Your task to perform on an android device: Go to battery settings Image 0: 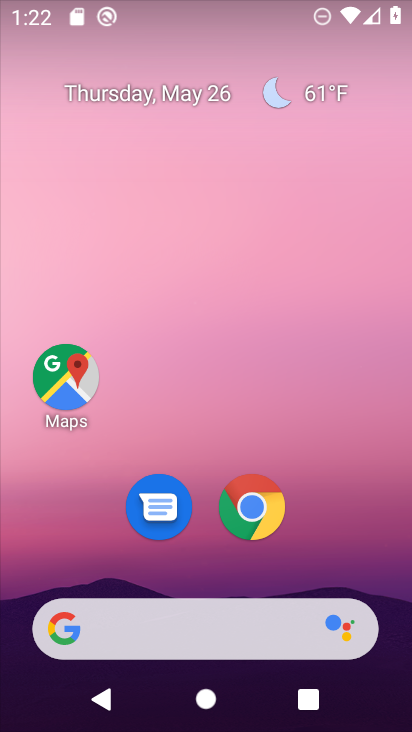
Step 0: drag from (364, 534) to (24, 80)
Your task to perform on an android device: Go to battery settings Image 1: 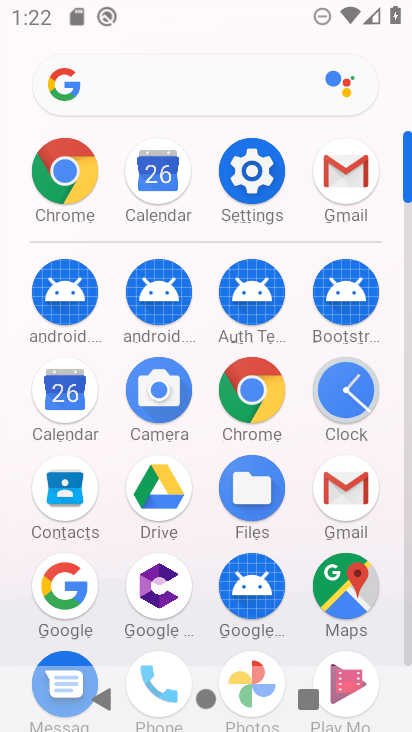
Step 1: click (259, 179)
Your task to perform on an android device: Go to battery settings Image 2: 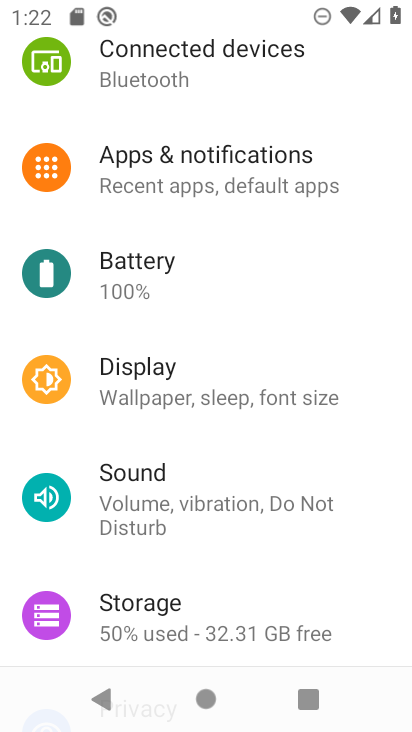
Step 2: click (199, 289)
Your task to perform on an android device: Go to battery settings Image 3: 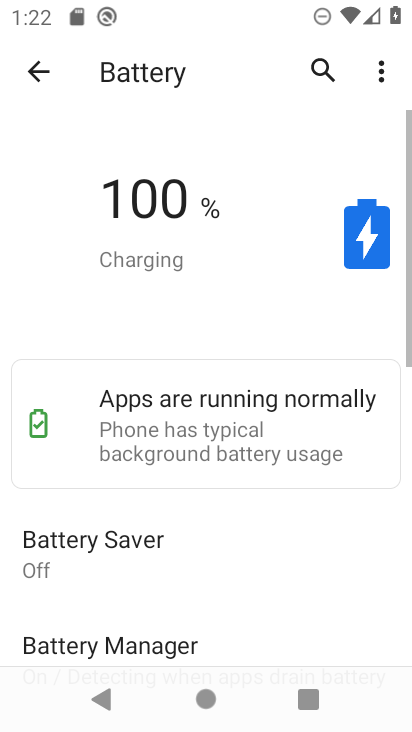
Step 3: task complete